Your task to perform on an android device: change the clock display to show seconds Image 0: 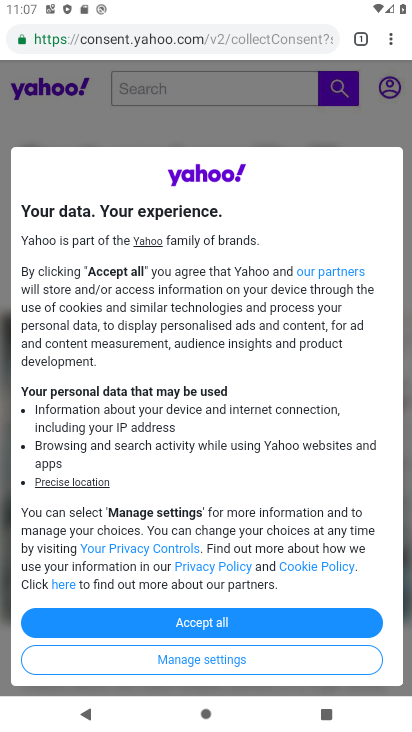
Step 0: press home button
Your task to perform on an android device: change the clock display to show seconds Image 1: 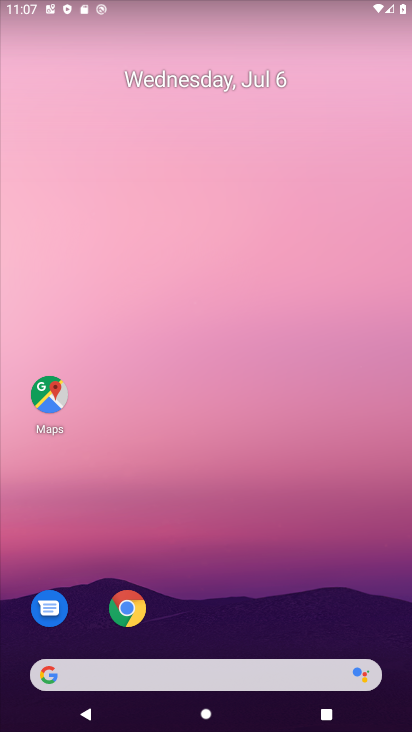
Step 1: drag from (227, 655) to (108, 96)
Your task to perform on an android device: change the clock display to show seconds Image 2: 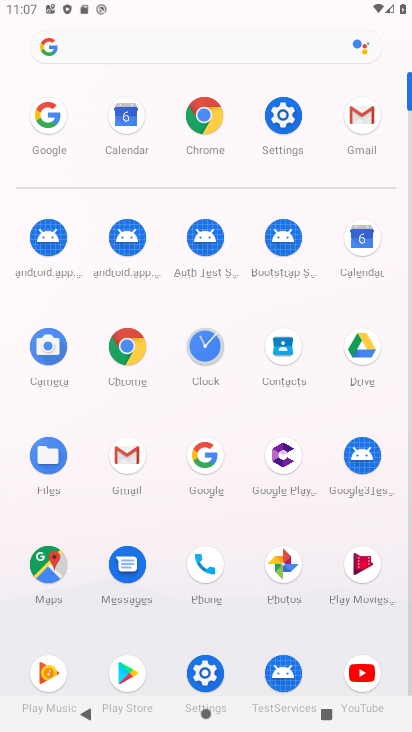
Step 2: click (202, 344)
Your task to perform on an android device: change the clock display to show seconds Image 3: 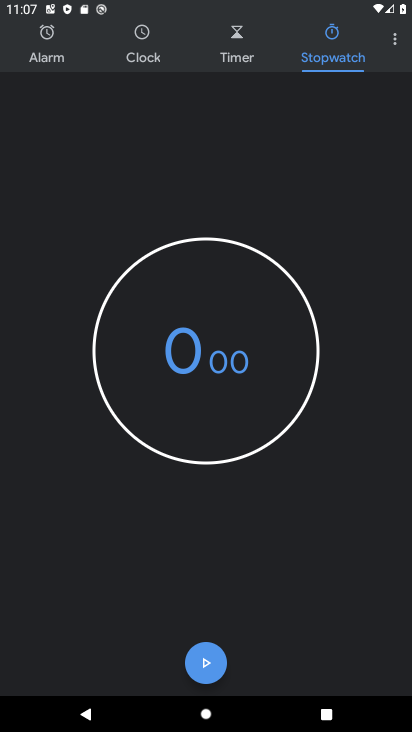
Step 3: click (389, 43)
Your task to perform on an android device: change the clock display to show seconds Image 4: 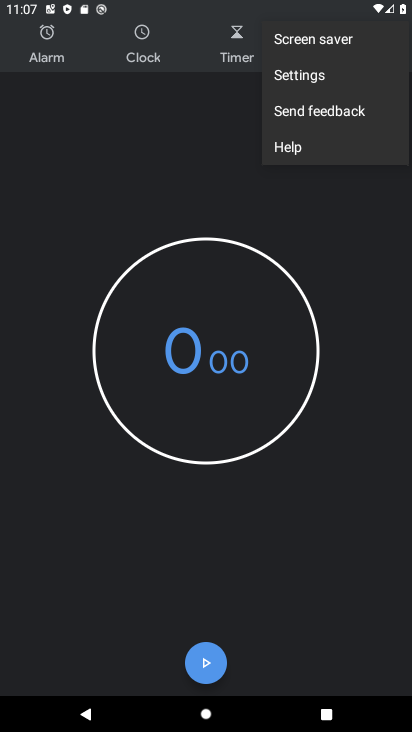
Step 4: click (313, 80)
Your task to perform on an android device: change the clock display to show seconds Image 5: 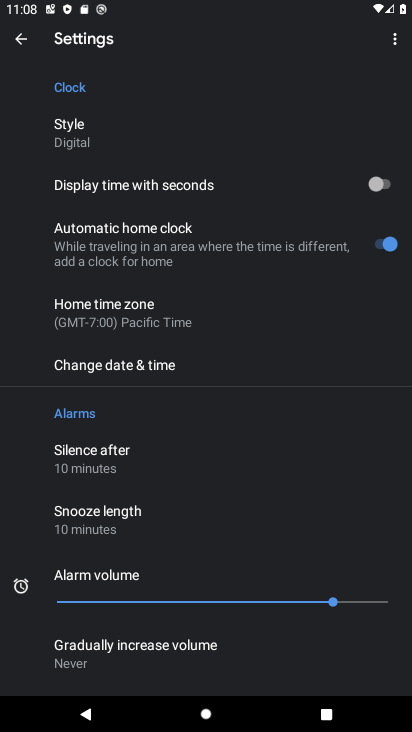
Step 5: click (368, 187)
Your task to perform on an android device: change the clock display to show seconds Image 6: 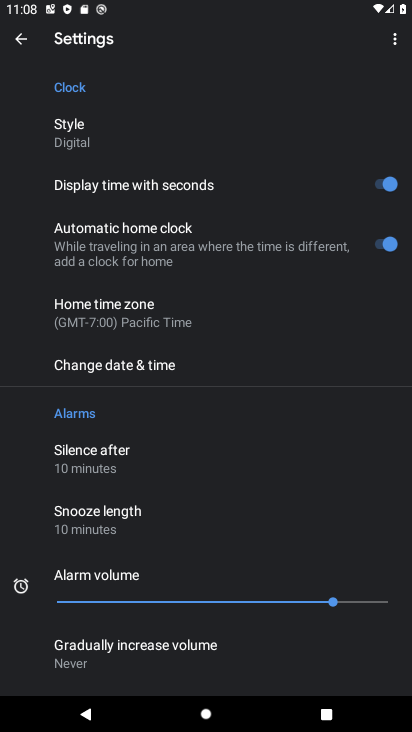
Step 6: task complete